Your task to perform on an android device: turn on translation in the chrome app Image 0: 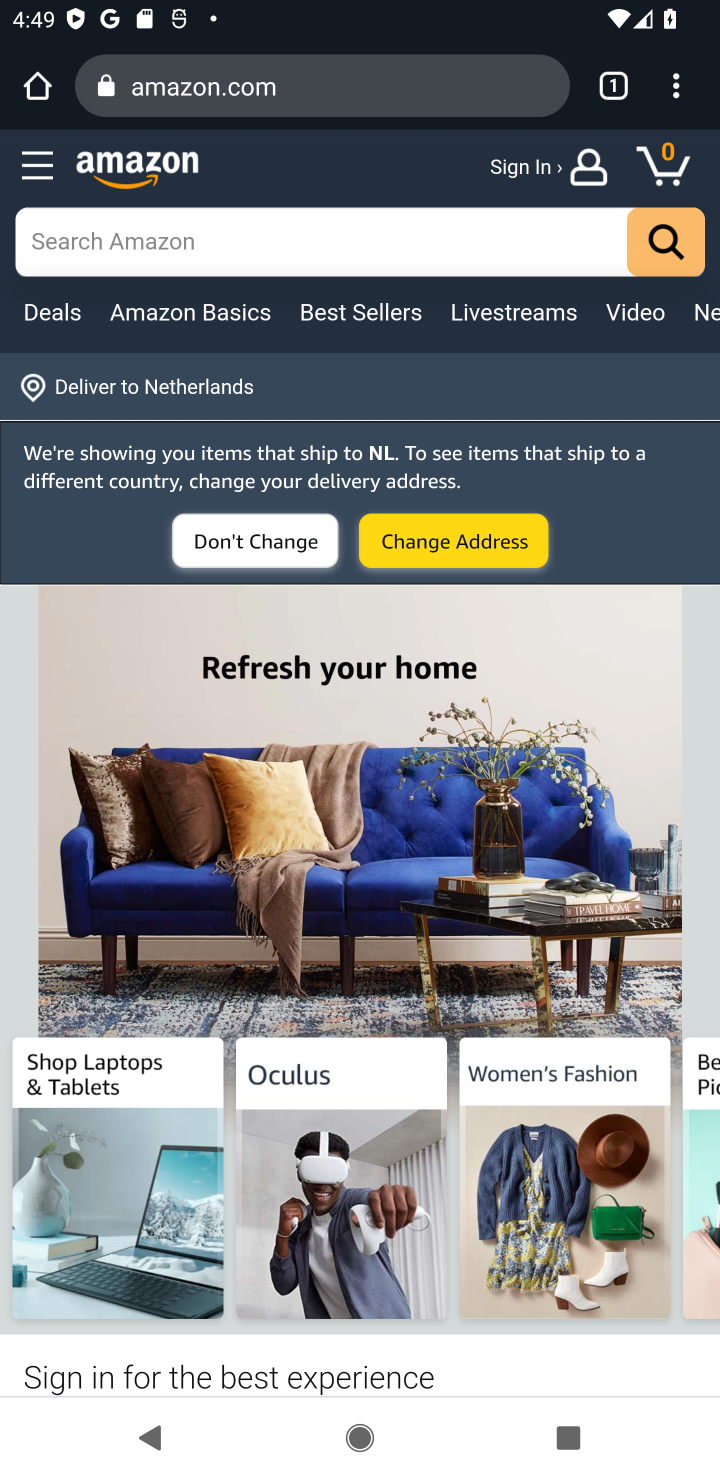
Step 0: press home button
Your task to perform on an android device: turn on translation in the chrome app Image 1: 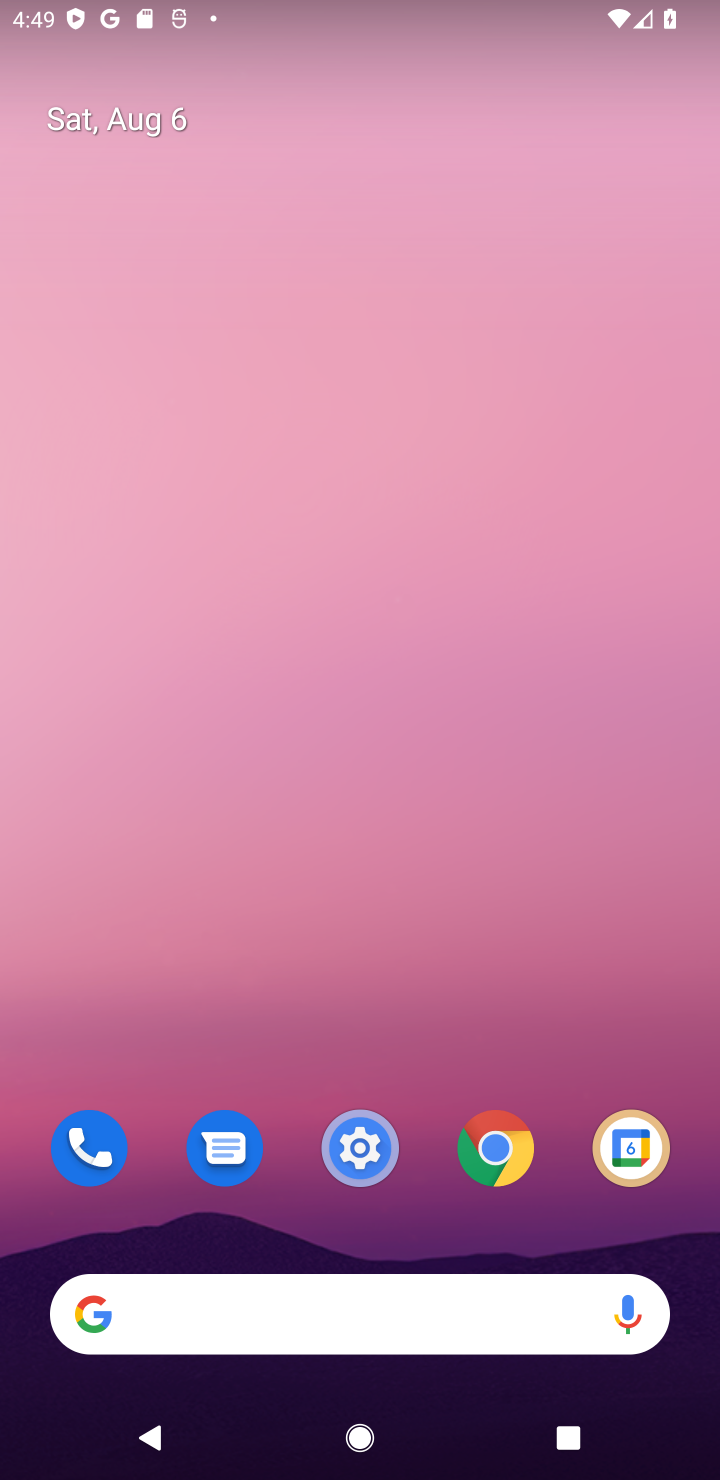
Step 1: click (719, 1085)
Your task to perform on an android device: turn on translation in the chrome app Image 2: 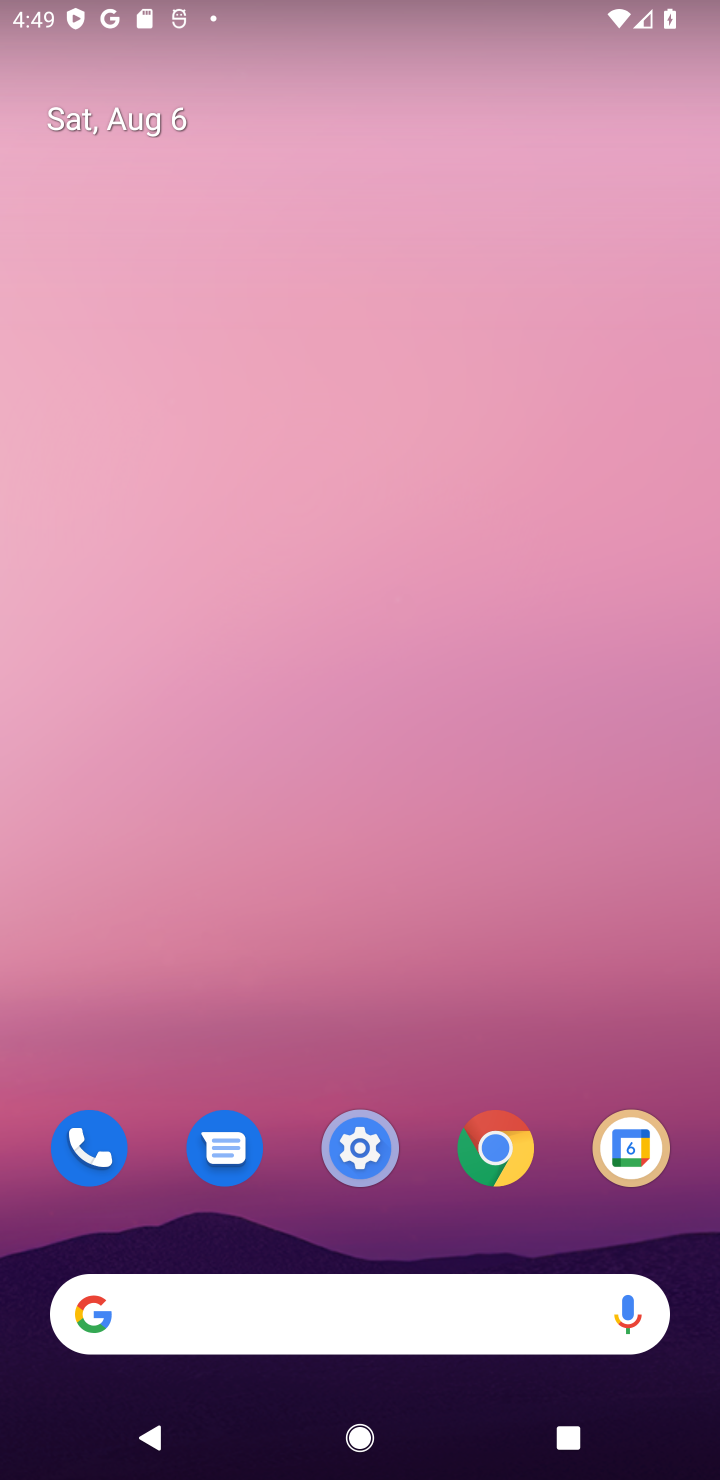
Step 2: click (508, 1132)
Your task to perform on an android device: turn on translation in the chrome app Image 3: 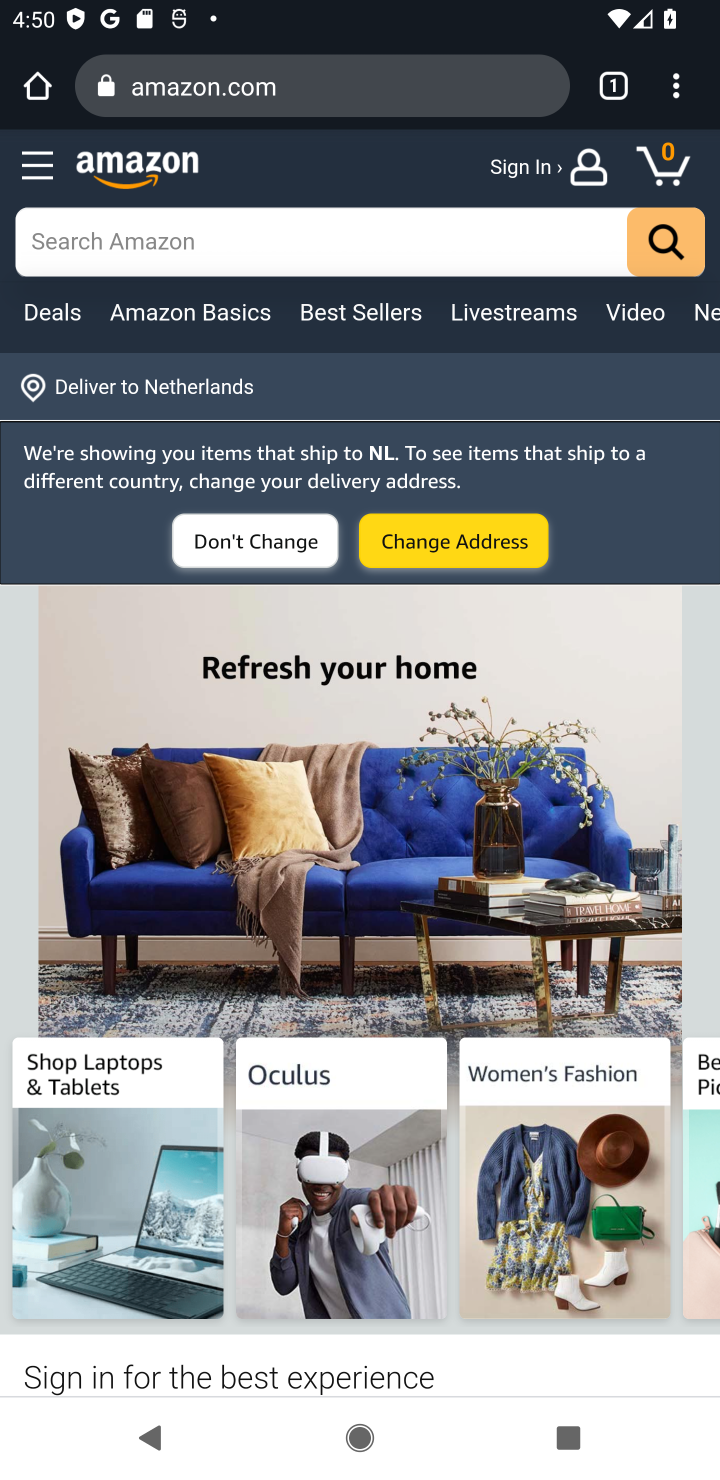
Step 3: click (687, 72)
Your task to perform on an android device: turn on translation in the chrome app Image 4: 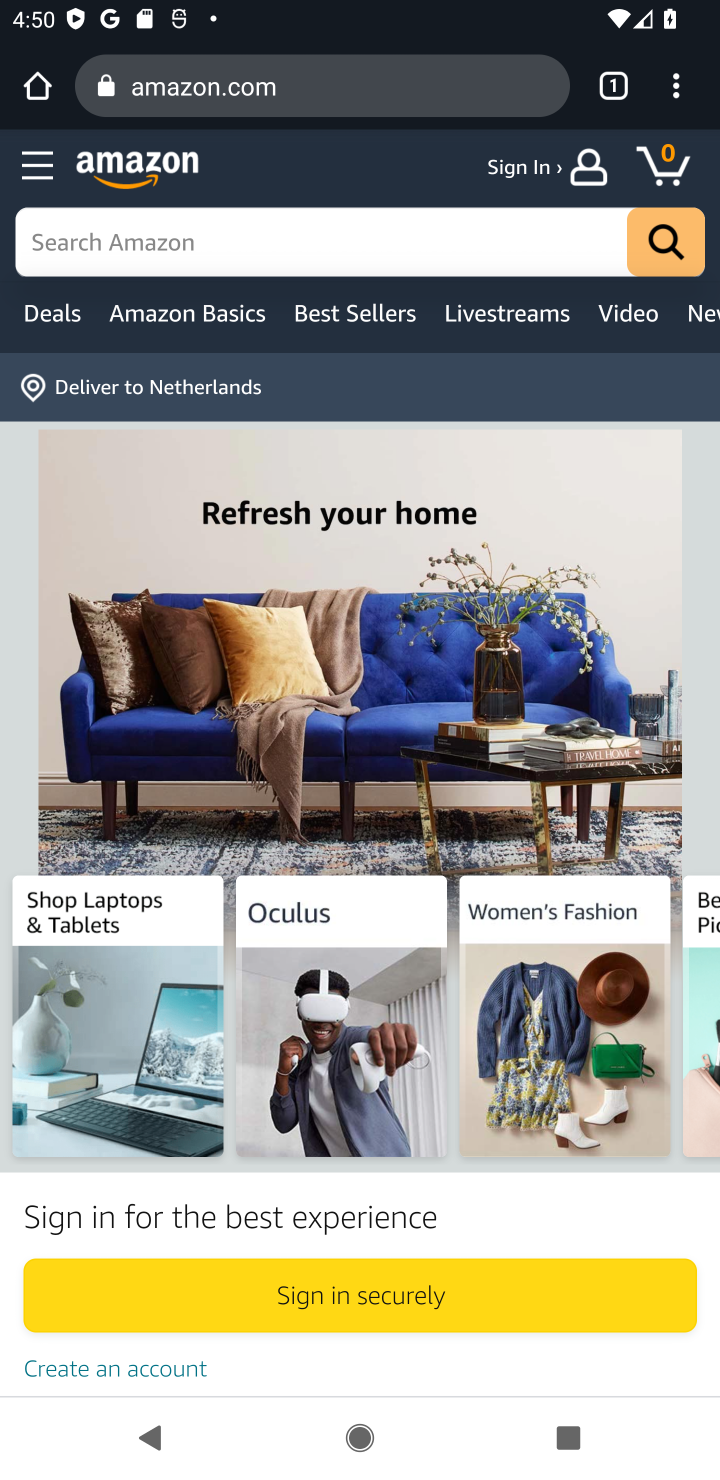
Step 4: click (677, 82)
Your task to perform on an android device: turn on translation in the chrome app Image 5: 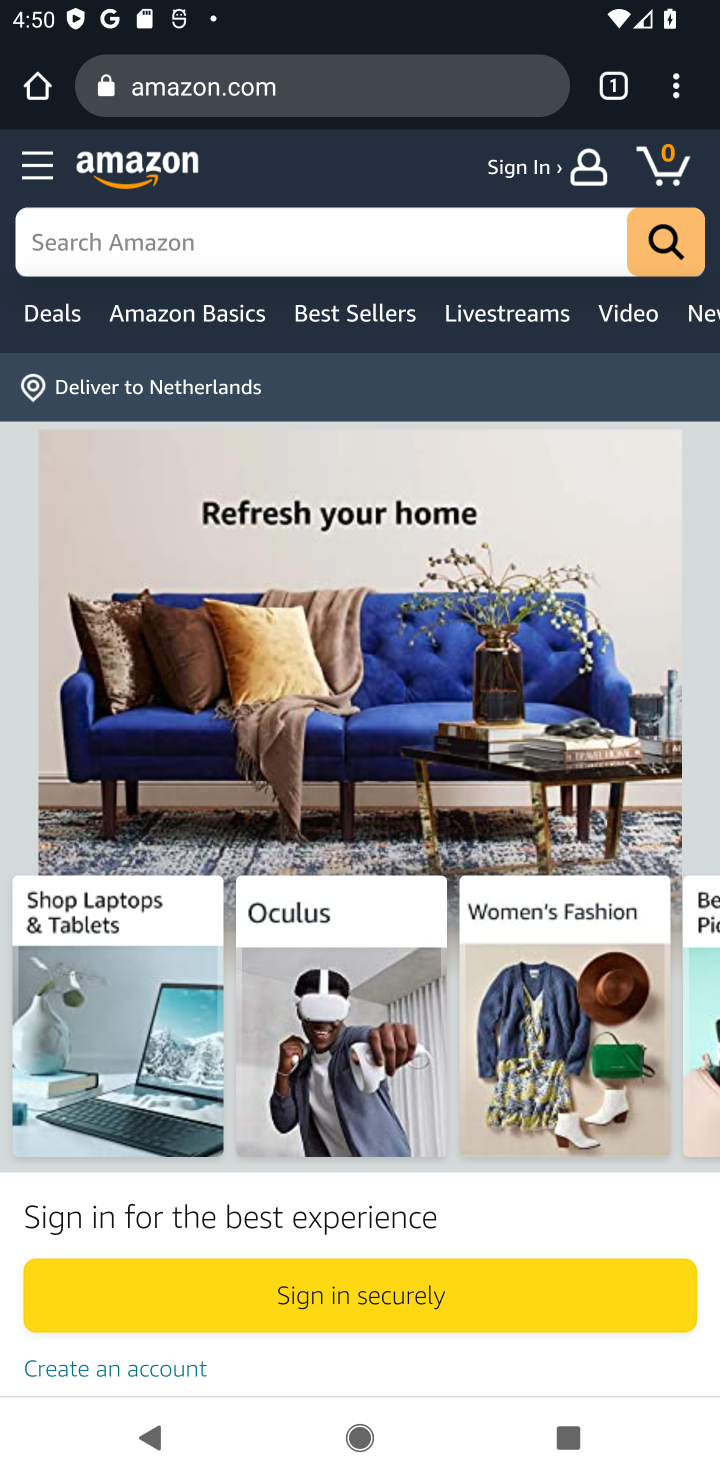
Step 5: click (677, 82)
Your task to perform on an android device: turn on translation in the chrome app Image 6: 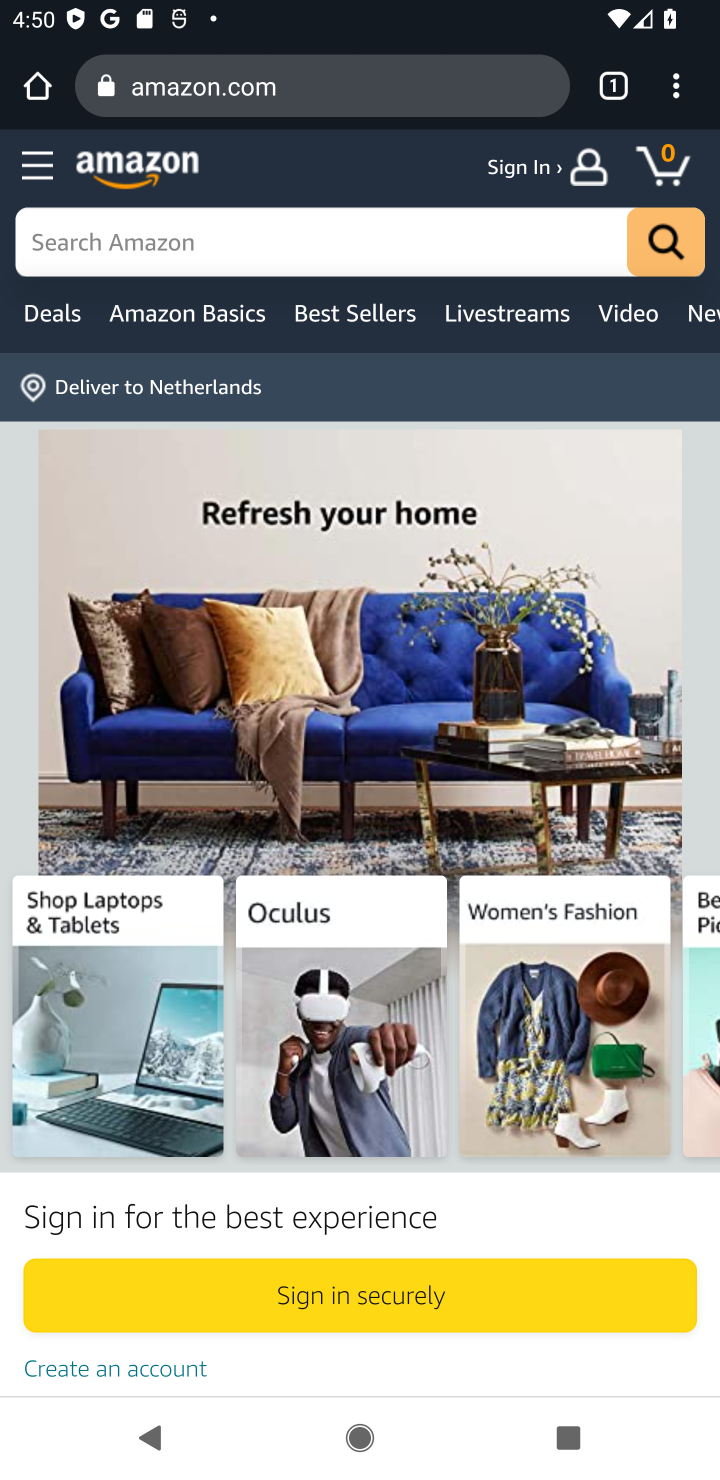
Step 6: click (675, 82)
Your task to perform on an android device: turn on translation in the chrome app Image 7: 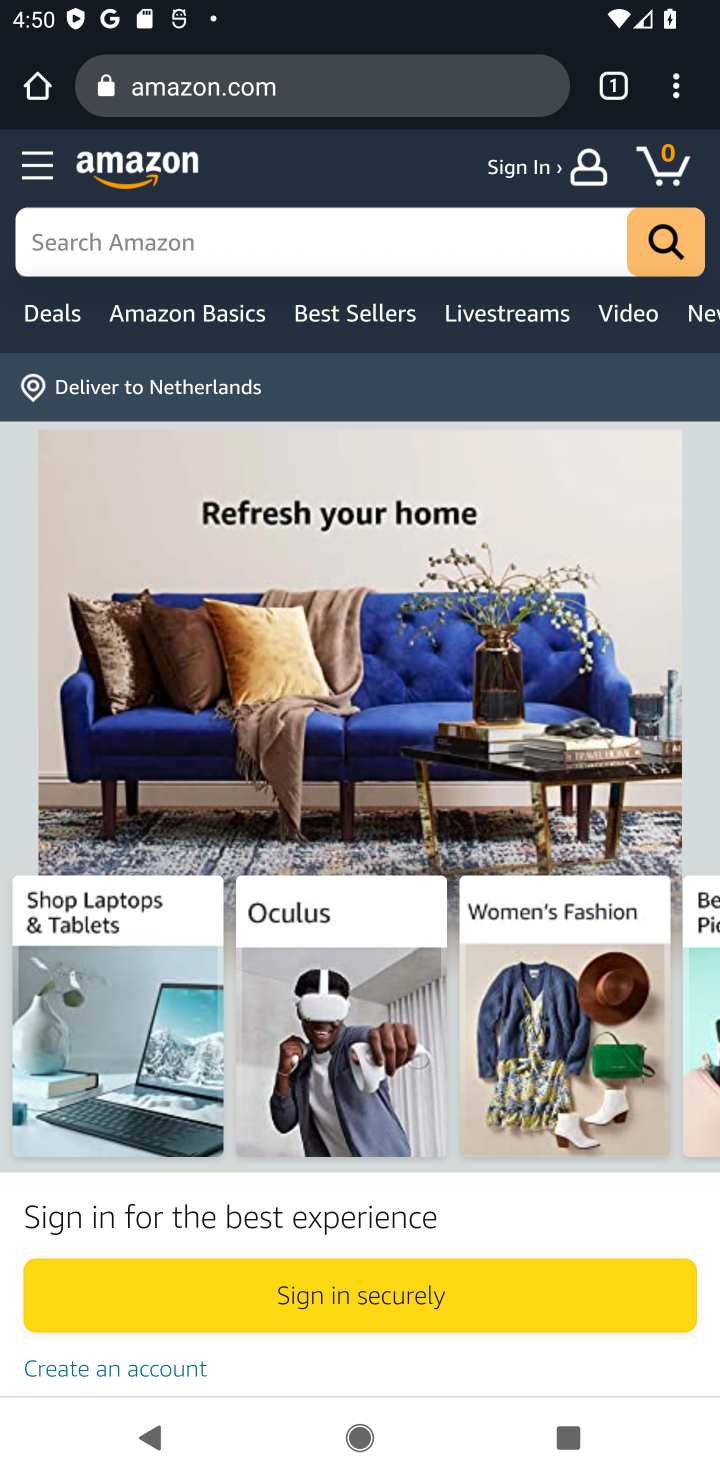
Step 7: click (675, 83)
Your task to perform on an android device: turn on translation in the chrome app Image 8: 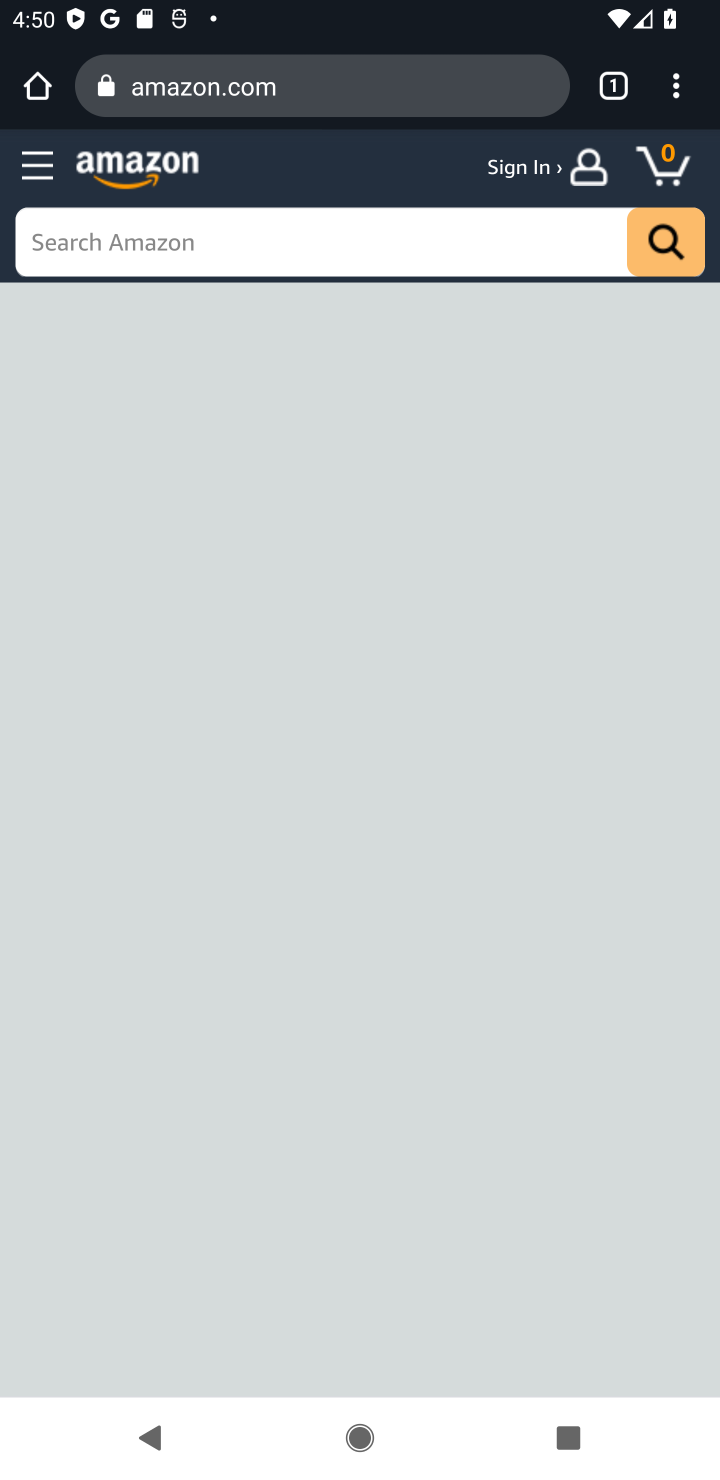
Step 8: click (675, 83)
Your task to perform on an android device: turn on translation in the chrome app Image 9: 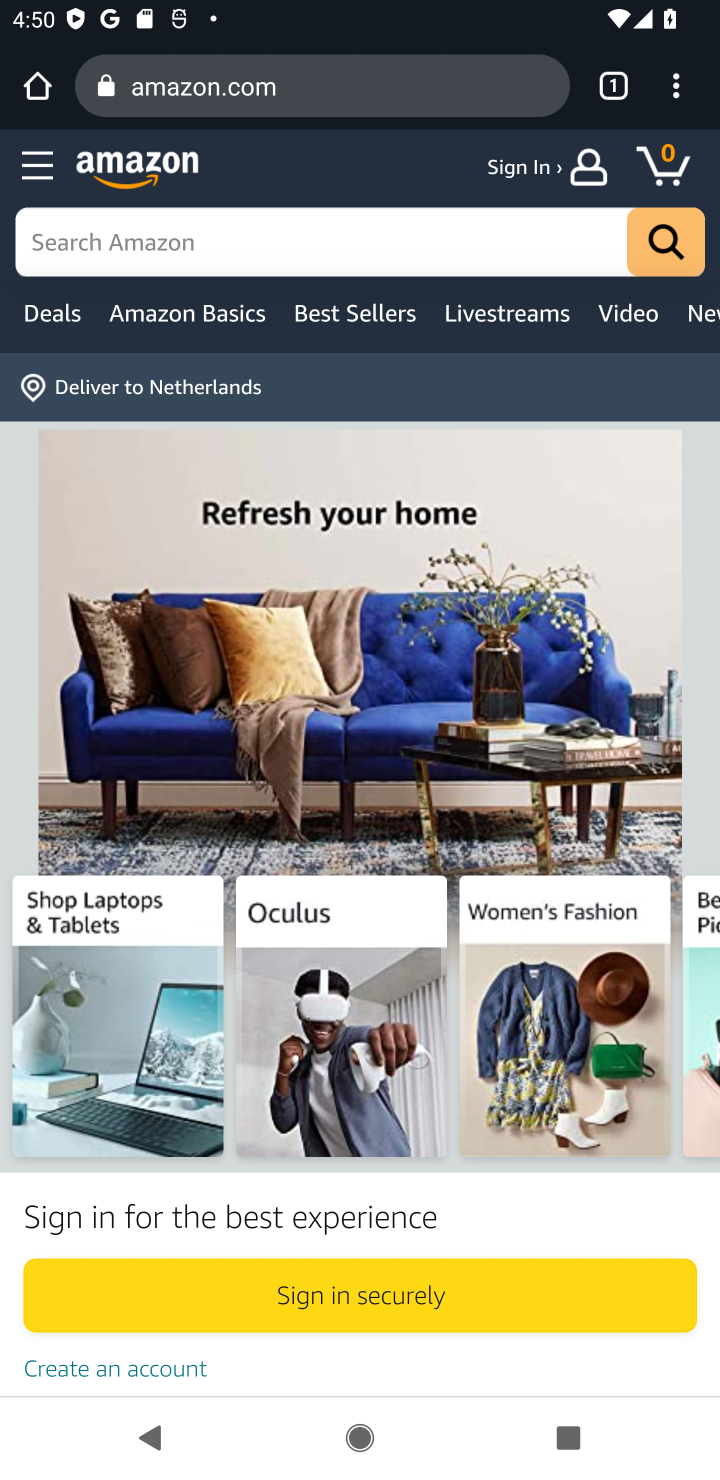
Step 9: click (675, 83)
Your task to perform on an android device: turn on translation in the chrome app Image 10: 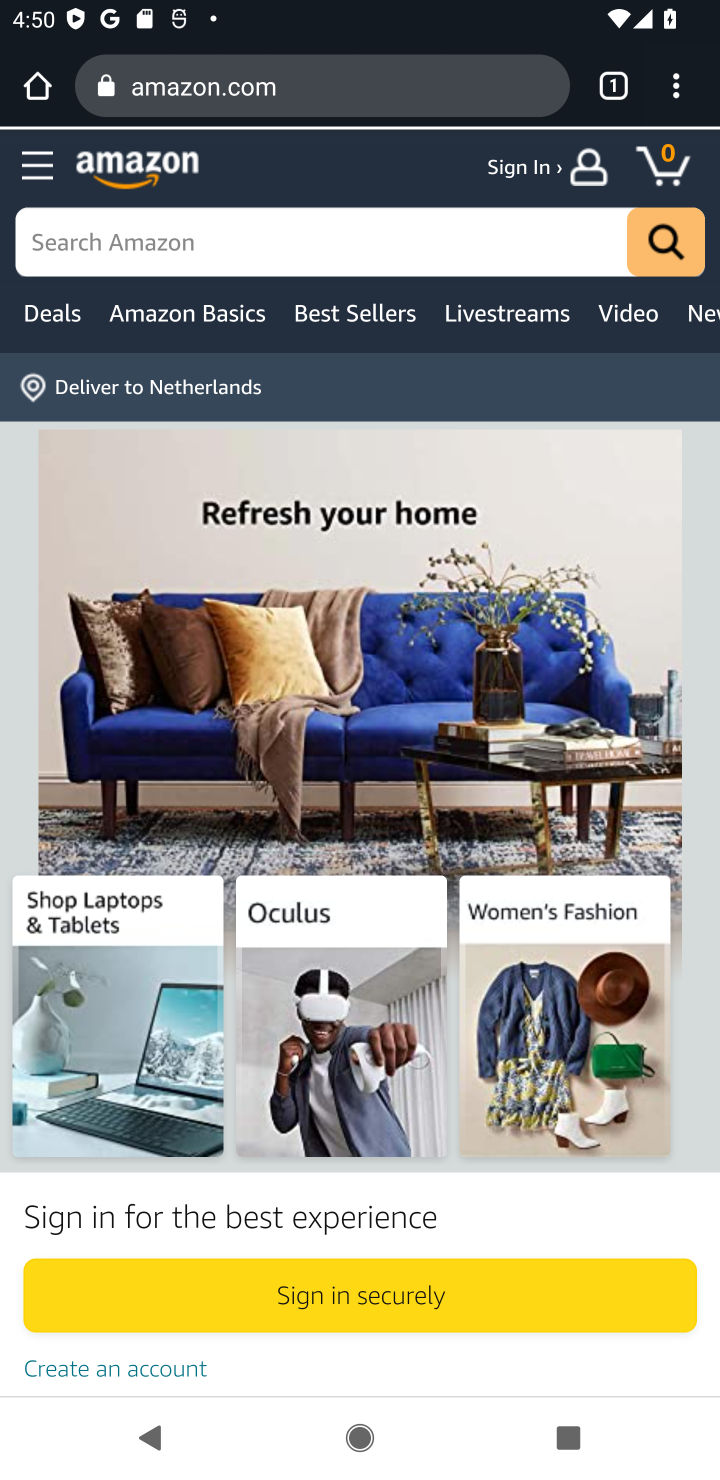
Step 10: click (675, 83)
Your task to perform on an android device: turn on translation in the chrome app Image 11: 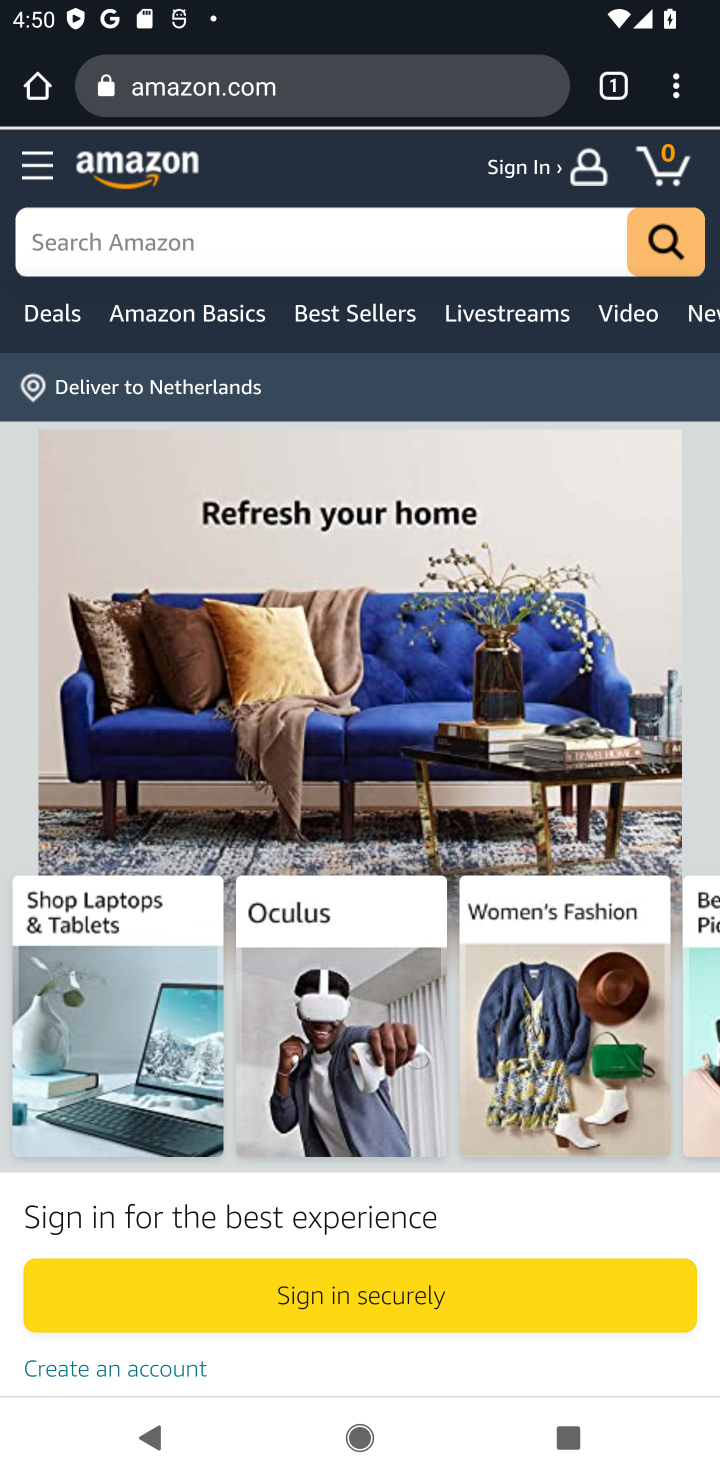
Step 11: click (675, 83)
Your task to perform on an android device: turn on translation in the chrome app Image 12: 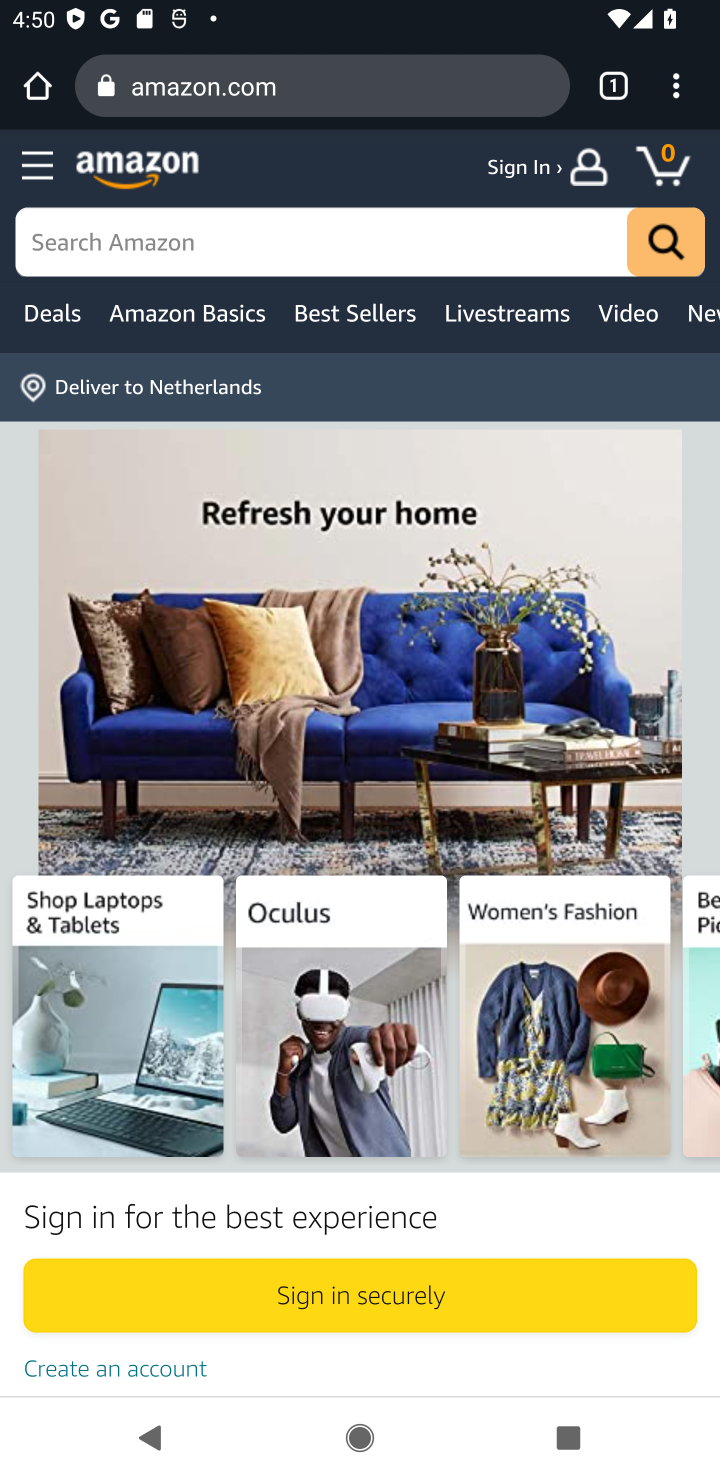
Step 12: click (675, 83)
Your task to perform on an android device: turn on translation in the chrome app Image 13: 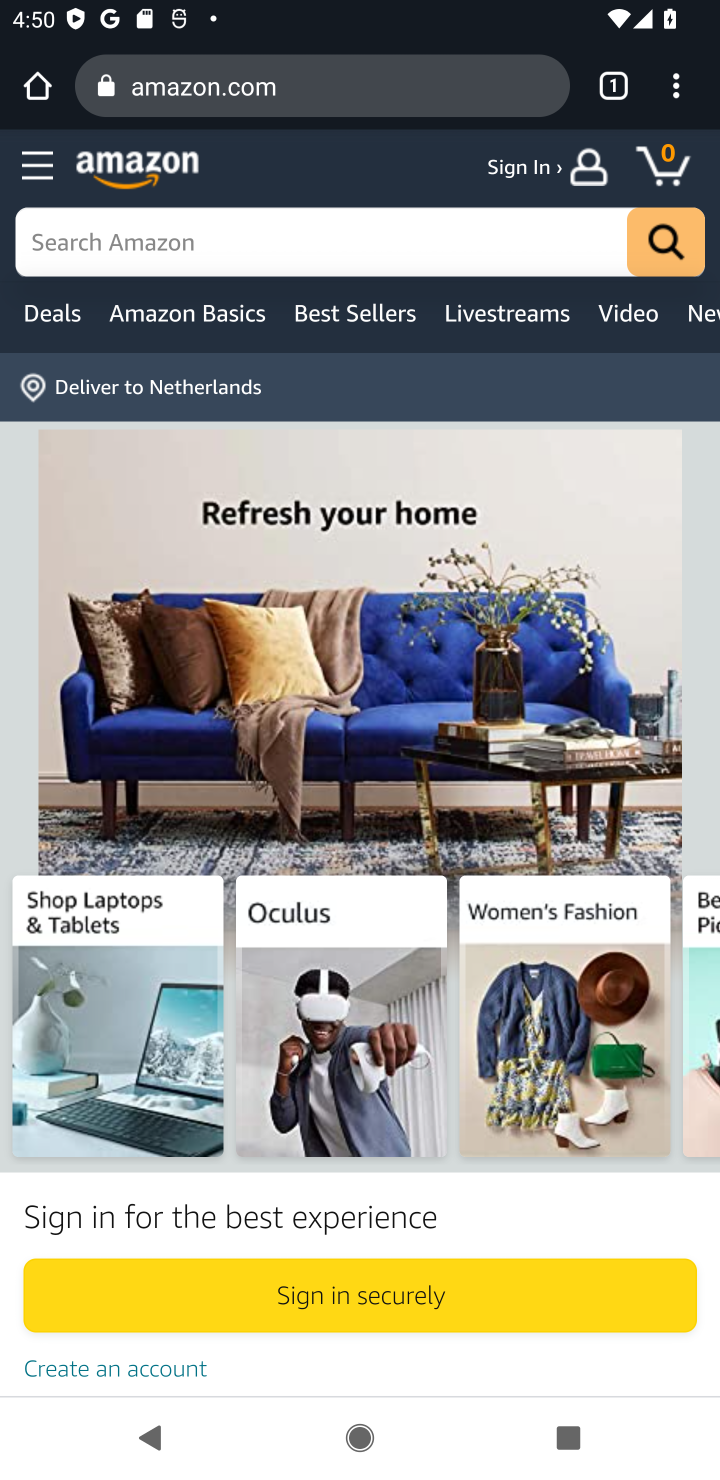
Step 13: click (675, 83)
Your task to perform on an android device: turn on translation in the chrome app Image 14: 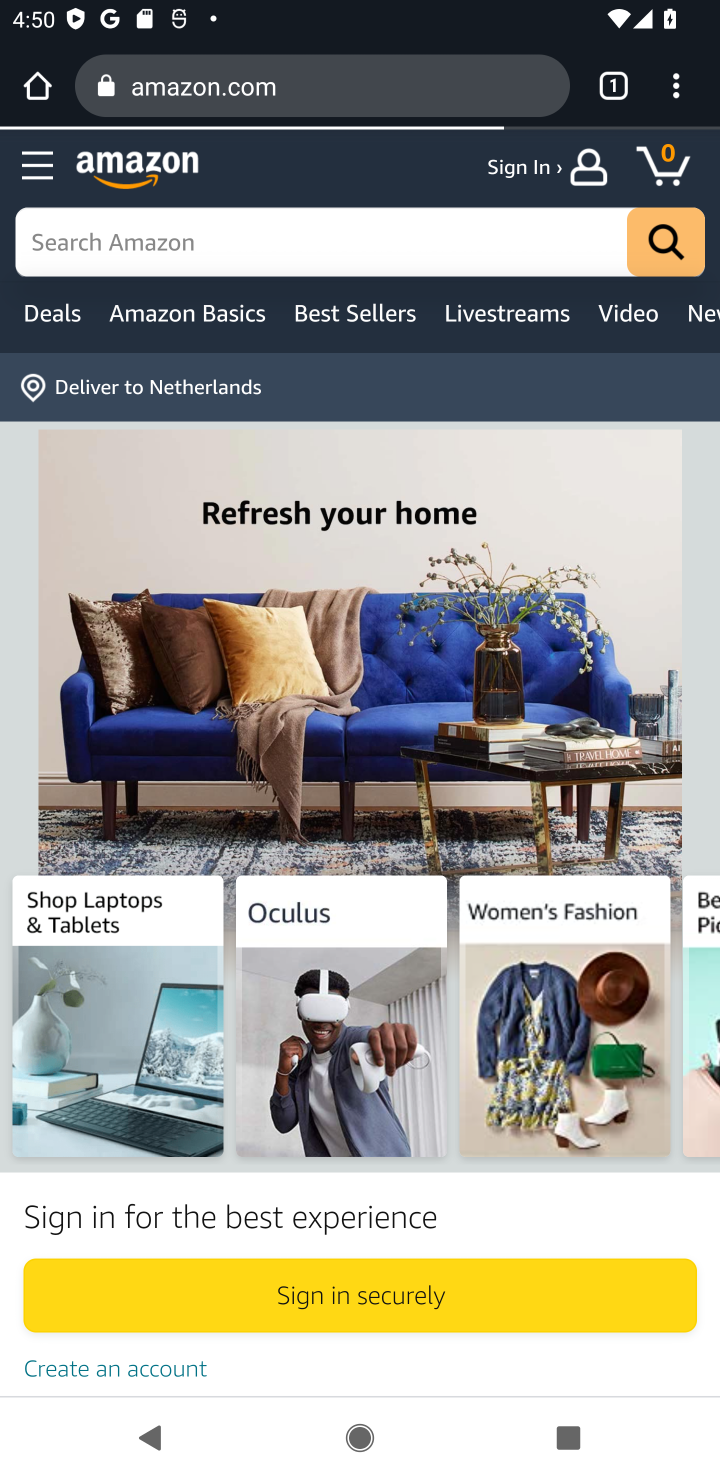
Step 14: click (675, 83)
Your task to perform on an android device: turn on translation in the chrome app Image 15: 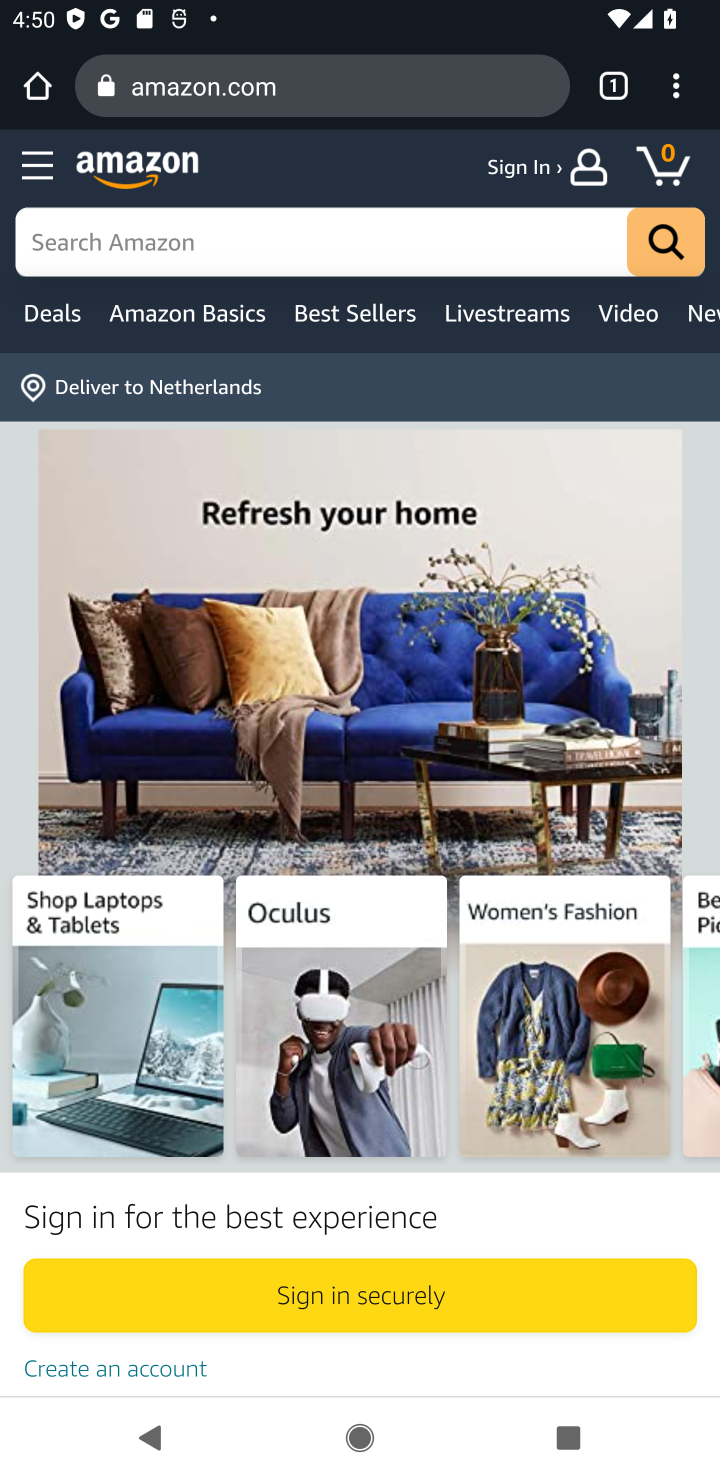
Step 15: drag from (671, 86) to (401, 1030)
Your task to perform on an android device: turn on translation in the chrome app Image 16: 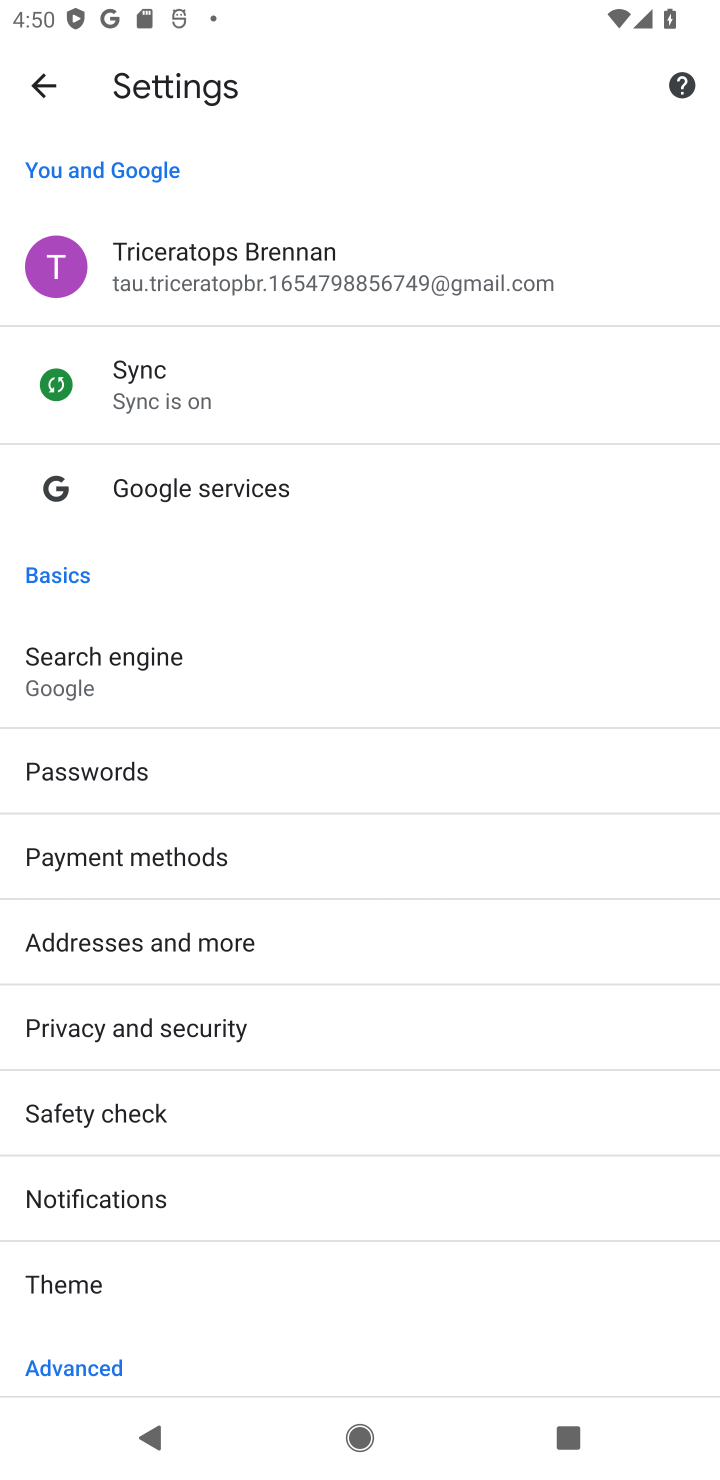
Step 16: drag from (401, 1030) to (392, 127)
Your task to perform on an android device: turn on translation in the chrome app Image 17: 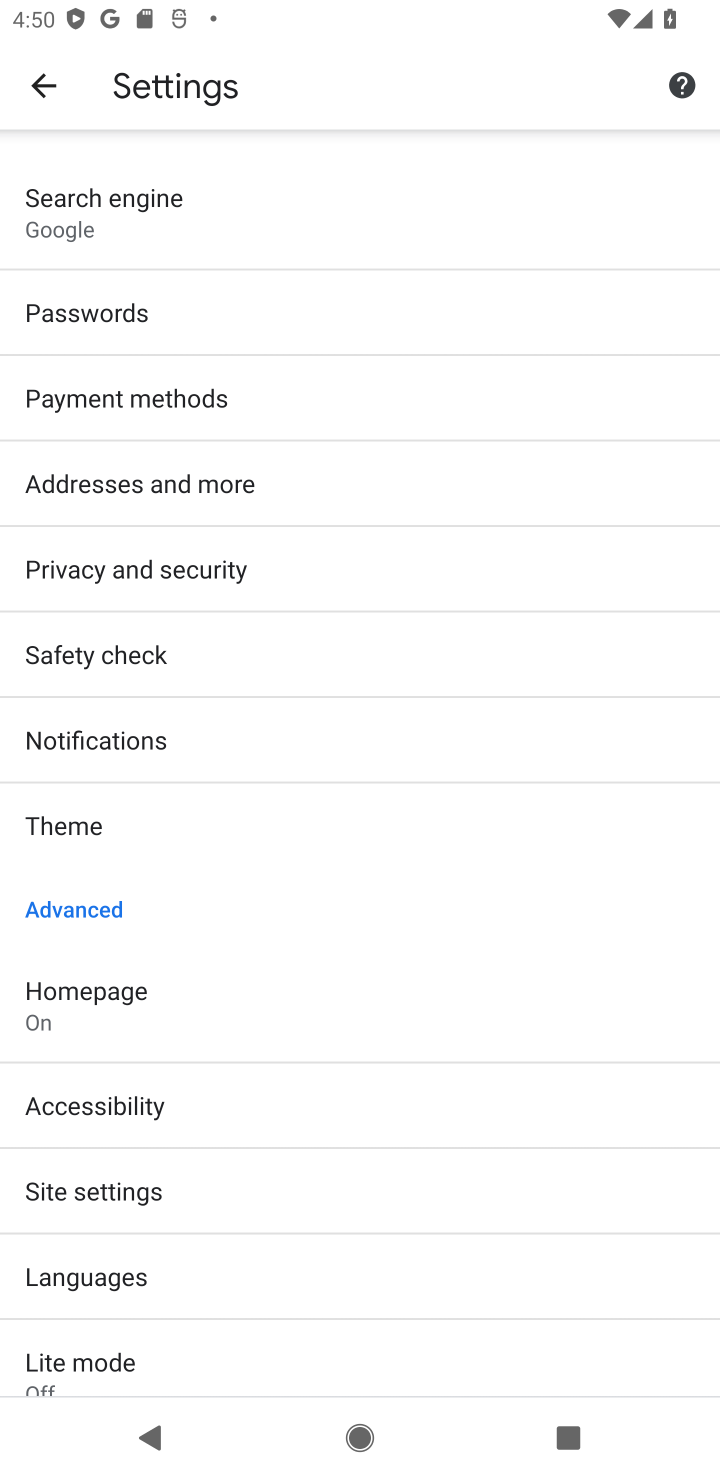
Step 17: click (152, 1273)
Your task to perform on an android device: turn on translation in the chrome app Image 18: 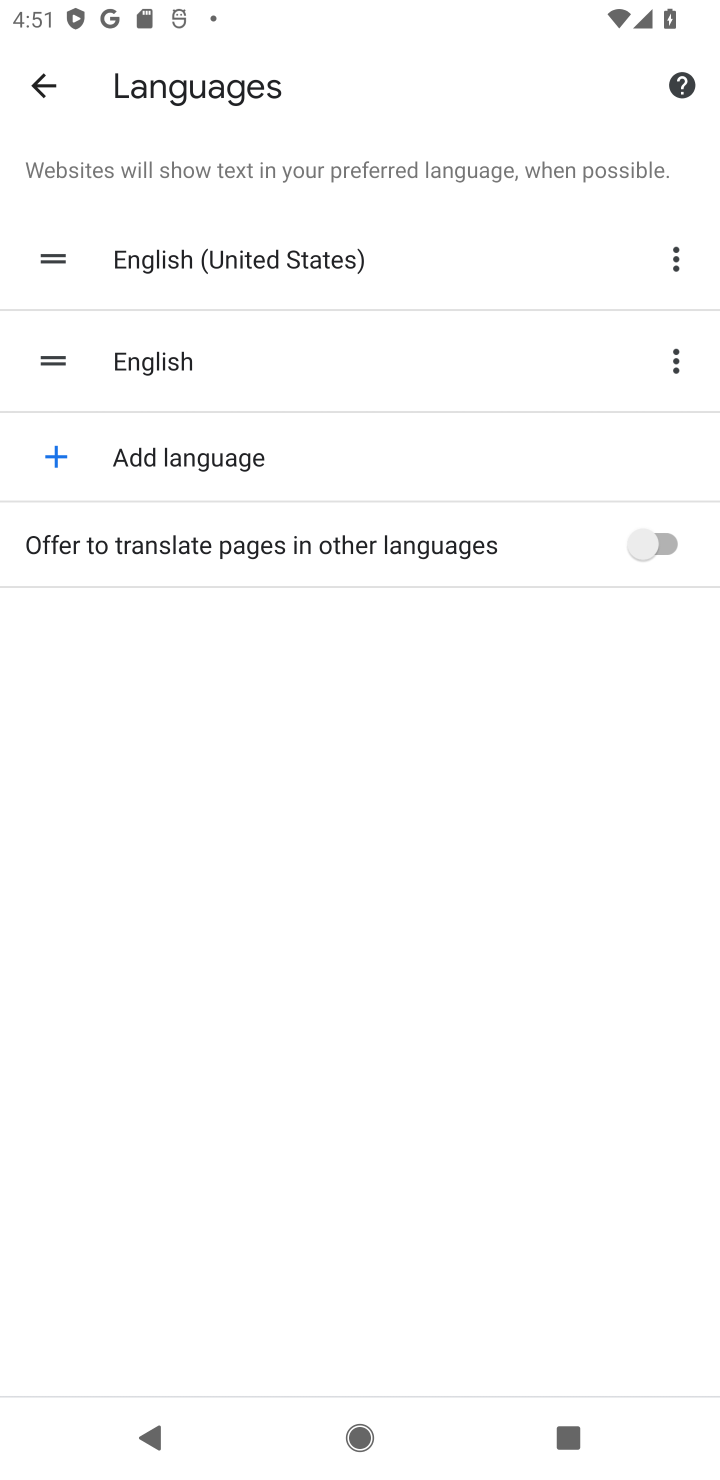
Step 18: click (624, 558)
Your task to perform on an android device: turn on translation in the chrome app Image 19: 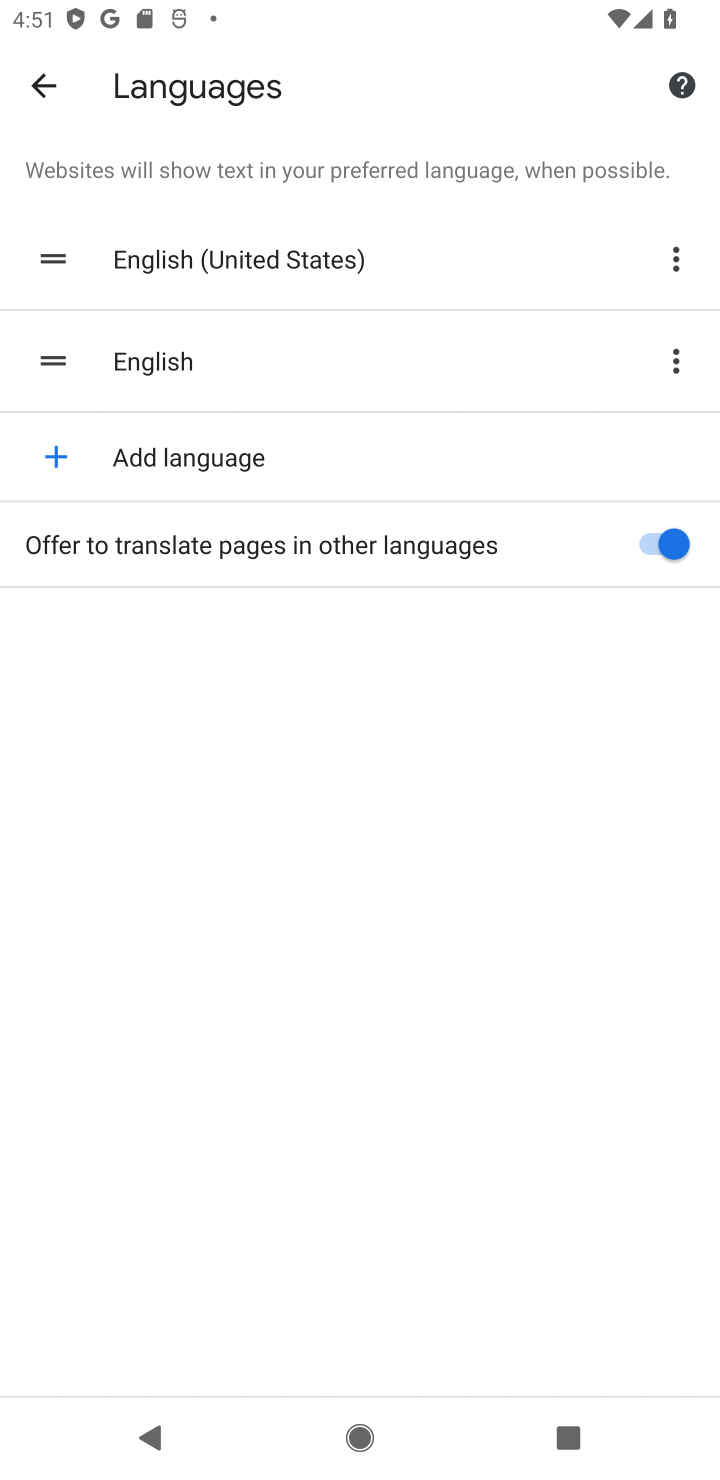
Step 19: task complete